Your task to perform on an android device: What is the recent news? Image 0: 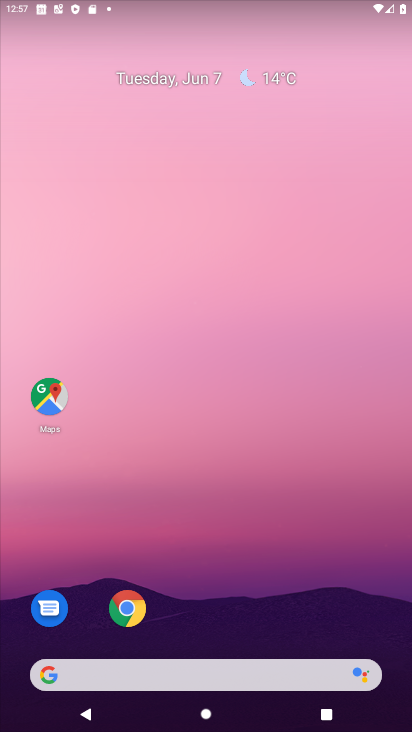
Step 0: click (196, 664)
Your task to perform on an android device: What is the recent news? Image 1: 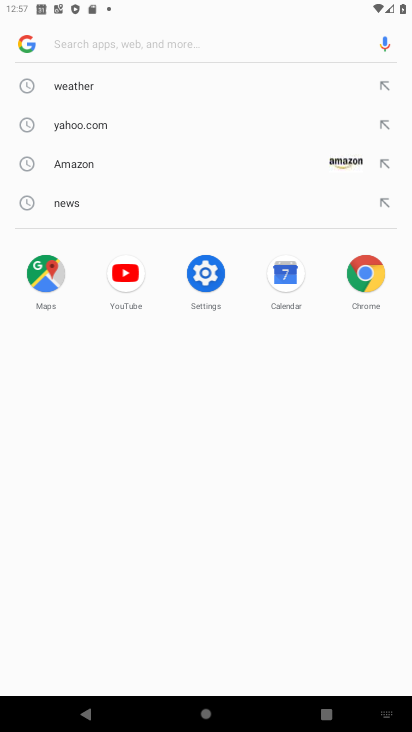
Step 1: click (112, 41)
Your task to perform on an android device: What is the recent news? Image 2: 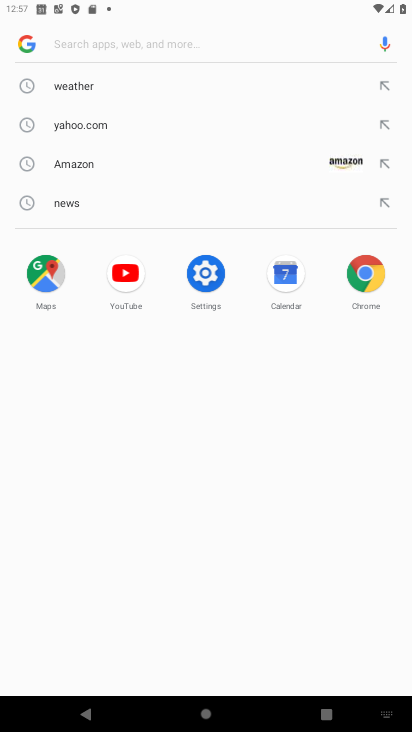
Step 2: type "recent news"
Your task to perform on an android device: What is the recent news? Image 3: 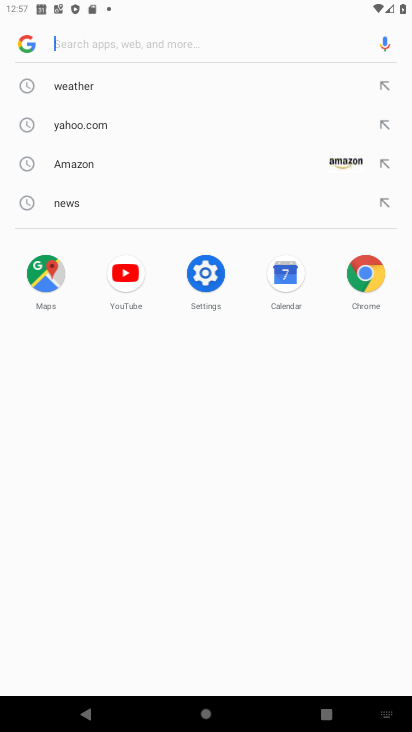
Step 3: click (167, 39)
Your task to perform on an android device: What is the recent news? Image 4: 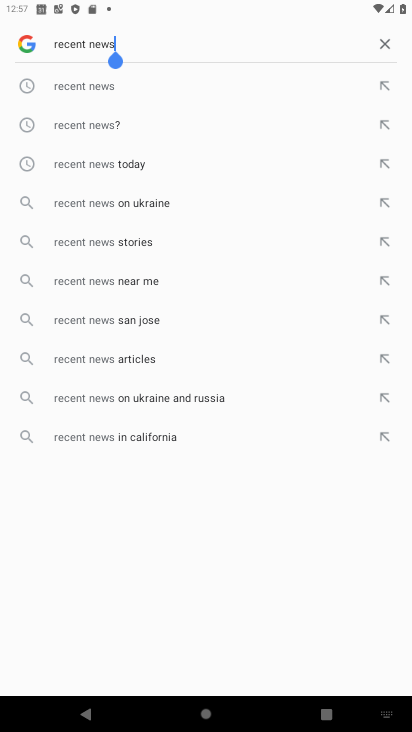
Step 4: click (80, 79)
Your task to perform on an android device: What is the recent news? Image 5: 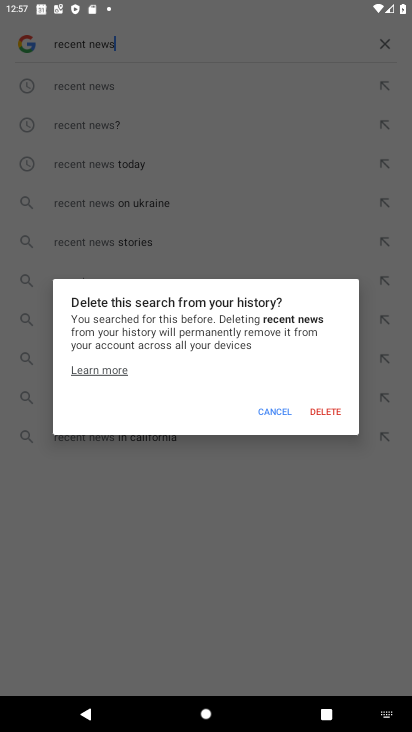
Step 5: click (67, 95)
Your task to perform on an android device: What is the recent news? Image 6: 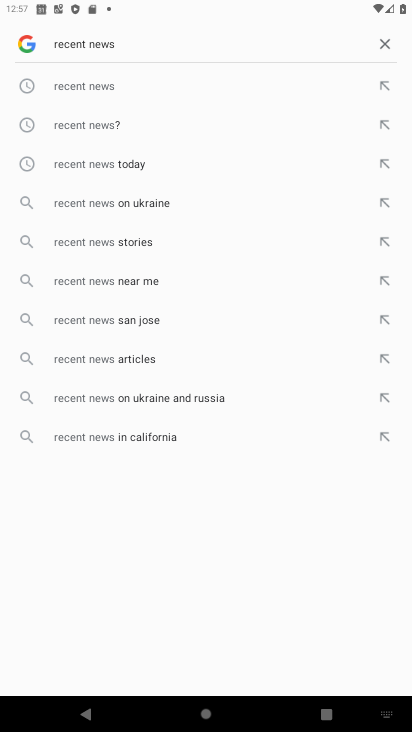
Step 6: click (74, 88)
Your task to perform on an android device: What is the recent news? Image 7: 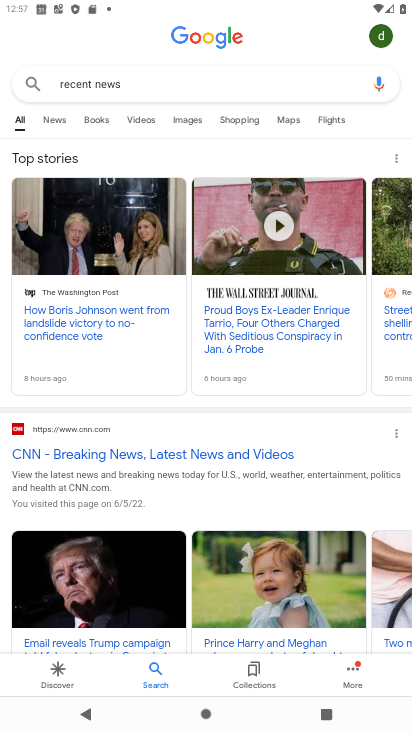
Step 7: task complete